Your task to perform on an android device: clear history in the chrome app Image 0: 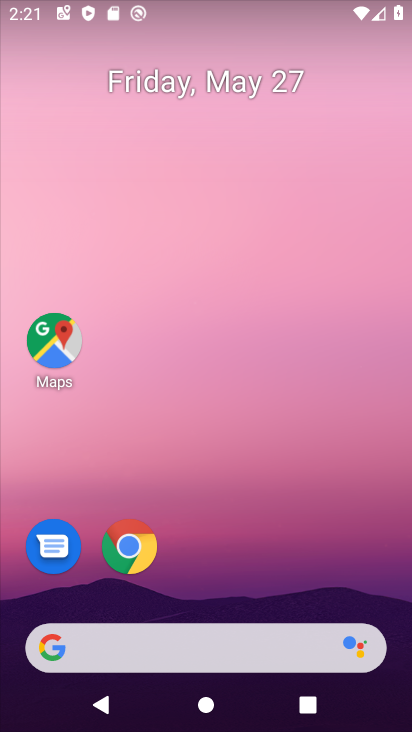
Step 0: click (119, 571)
Your task to perform on an android device: clear history in the chrome app Image 1: 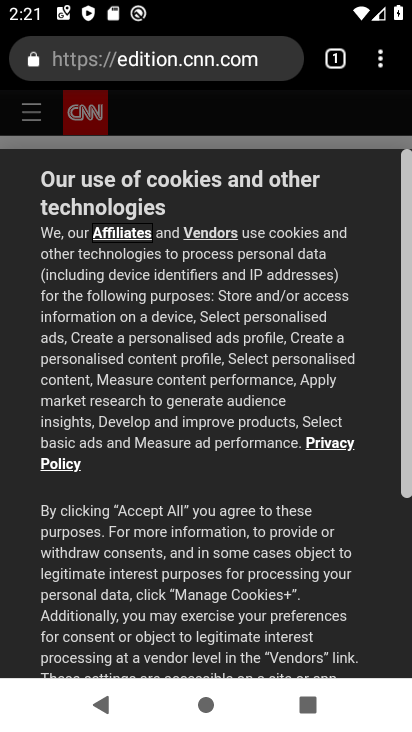
Step 1: click (377, 67)
Your task to perform on an android device: clear history in the chrome app Image 2: 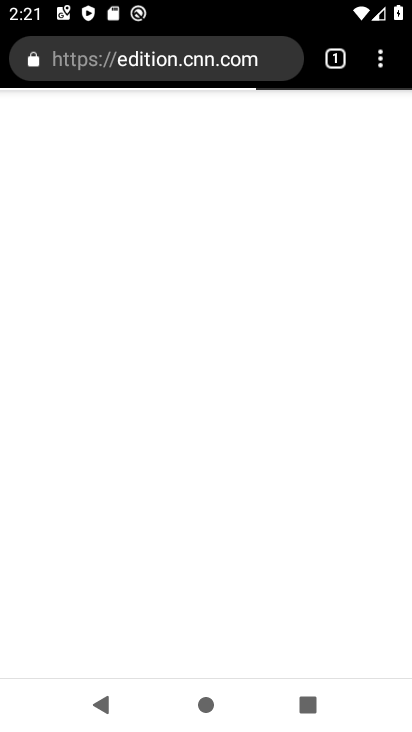
Step 2: click (384, 98)
Your task to perform on an android device: clear history in the chrome app Image 3: 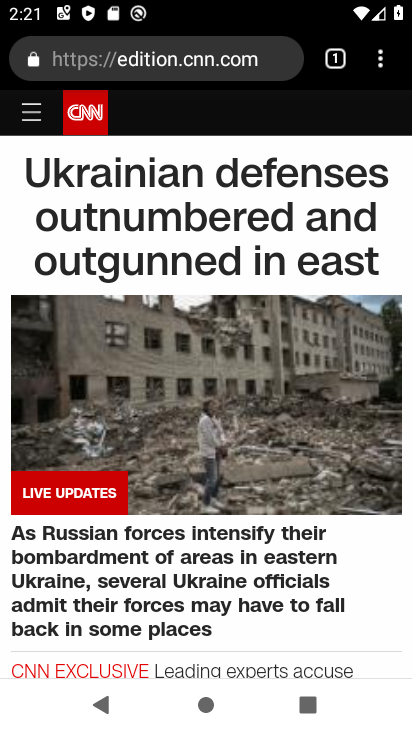
Step 3: click (373, 66)
Your task to perform on an android device: clear history in the chrome app Image 4: 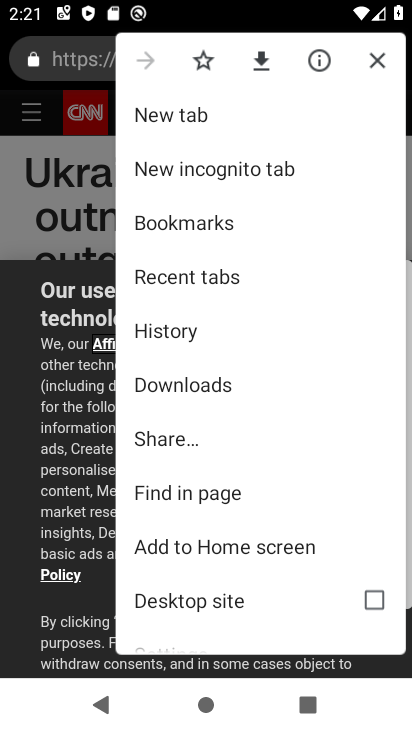
Step 4: click (142, 361)
Your task to perform on an android device: clear history in the chrome app Image 5: 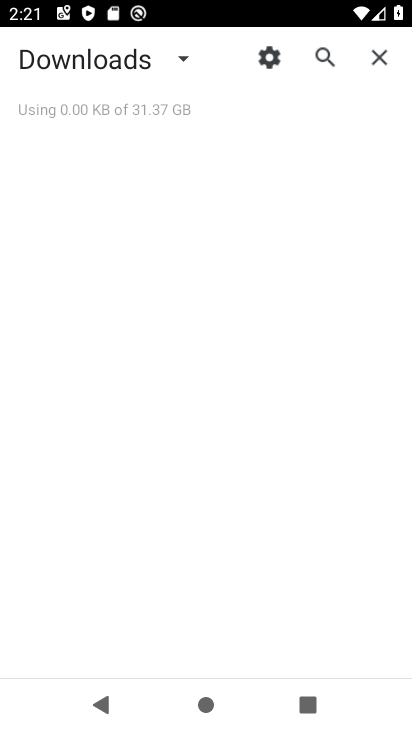
Step 5: click (378, 59)
Your task to perform on an android device: clear history in the chrome app Image 6: 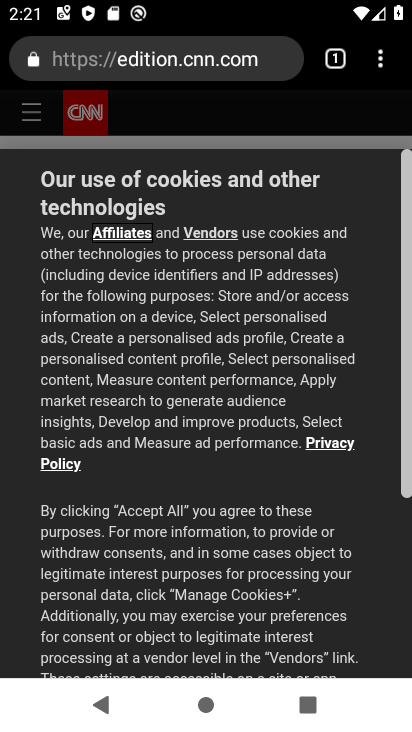
Step 6: click (379, 58)
Your task to perform on an android device: clear history in the chrome app Image 7: 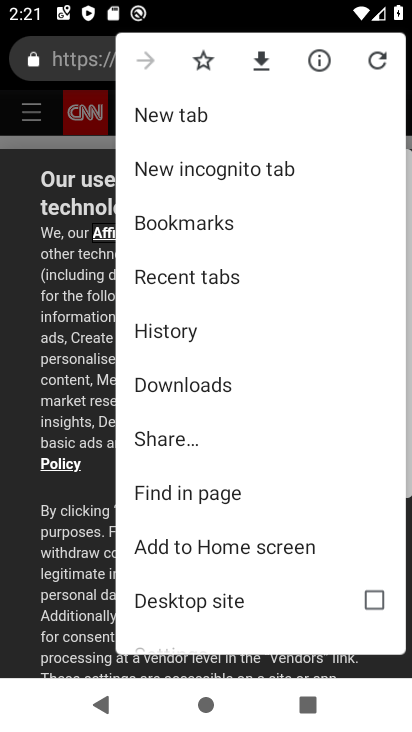
Step 7: click (162, 321)
Your task to perform on an android device: clear history in the chrome app Image 8: 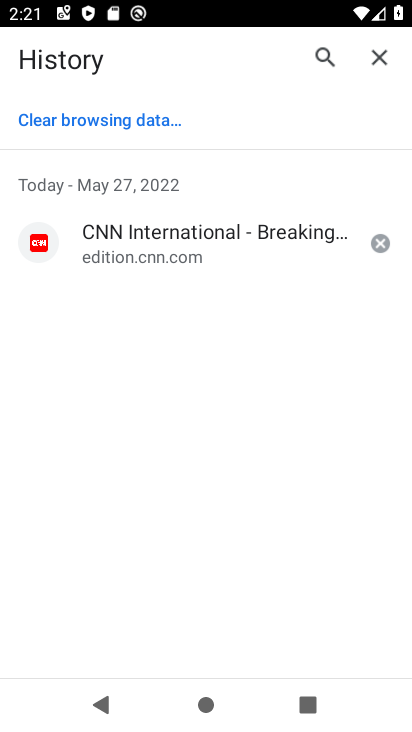
Step 8: click (143, 126)
Your task to perform on an android device: clear history in the chrome app Image 9: 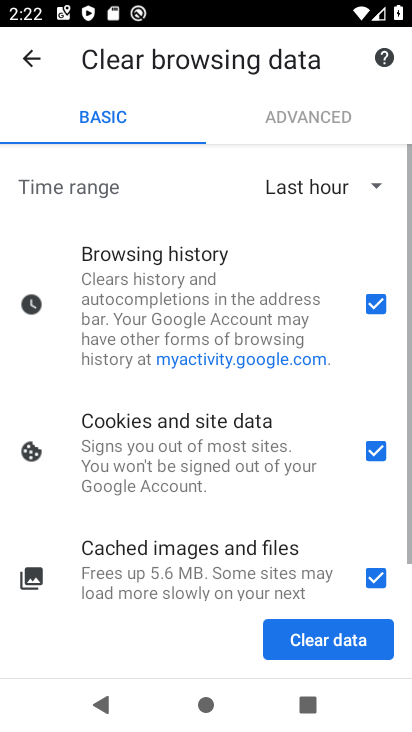
Step 9: click (352, 632)
Your task to perform on an android device: clear history in the chrome app Image 10: 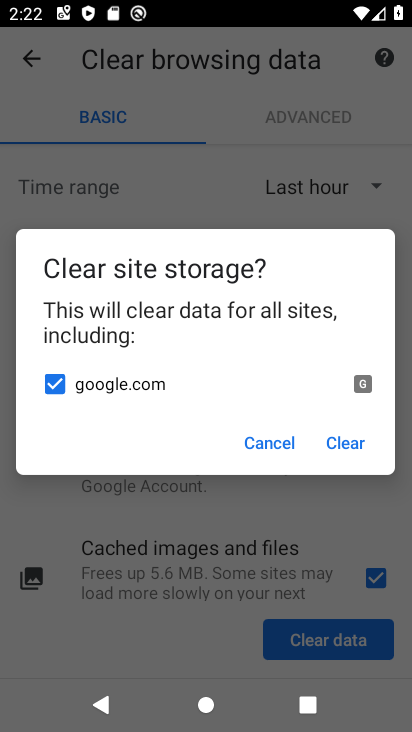
Step 10: click (362, 446)
Your task to perform on an android device: clear history in the chrome app Image 11: 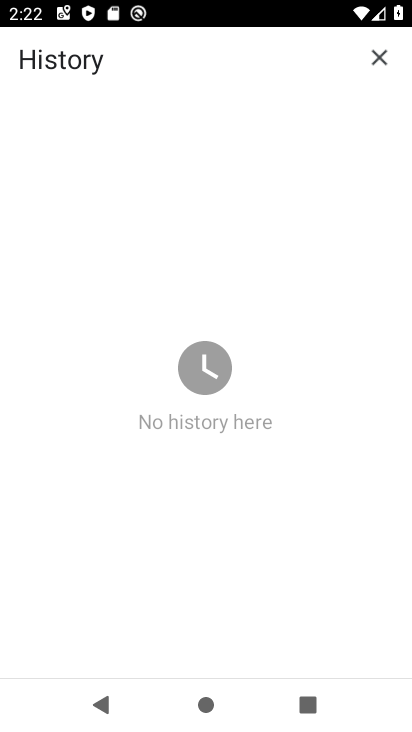
Step 11: click (387, 54)
Your task to perform on an android device: clear history in the chrome app Image 12: 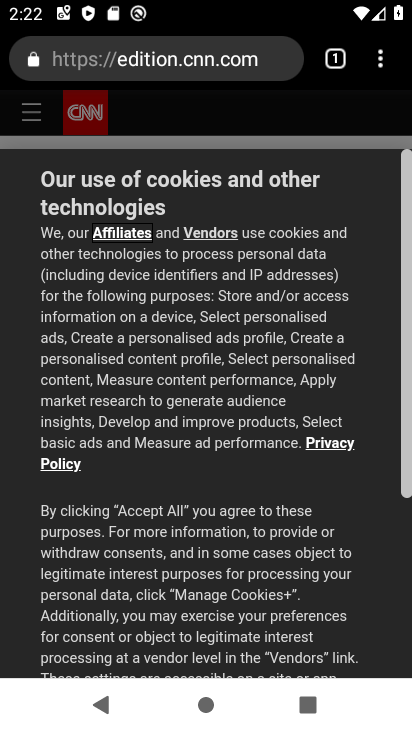
Step 12: task complete